Your task to perform on an android device: Go to display settings Image 0: 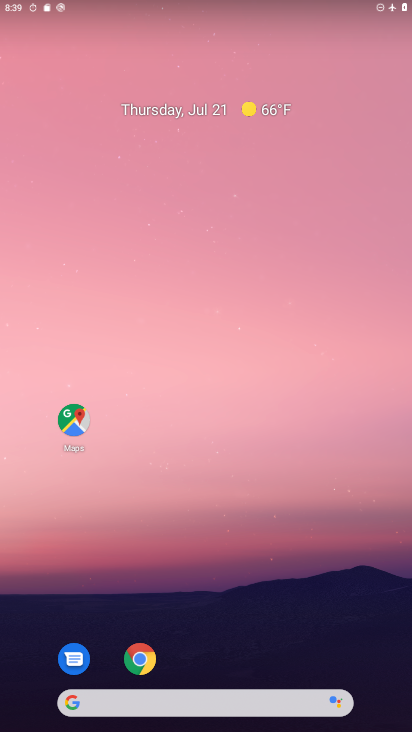
Step 0: drag from (214, 630) to (354, 279)
Your task to perform on an android device: Go to display settings Image 1: 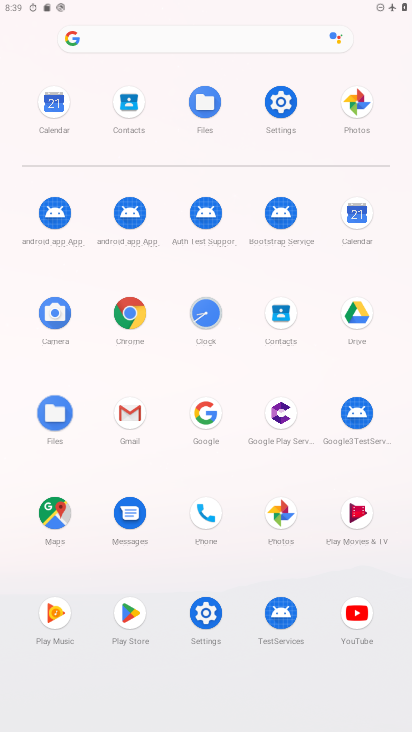
Step 1: click (211, 623)
Your task to perform on an android device: Go to display settings Image 2: 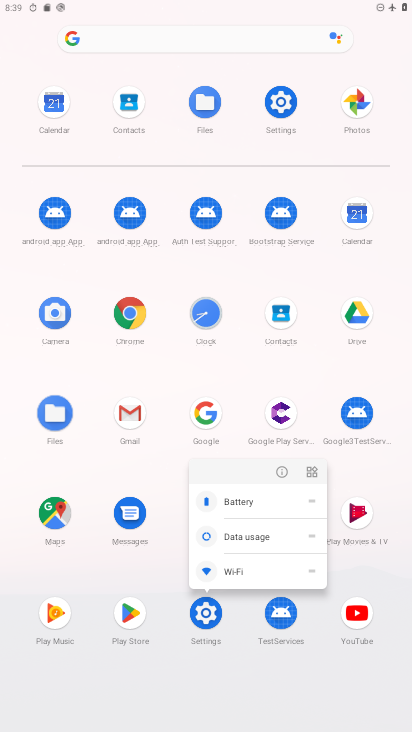
Step 2: click (278, 469)
Your task to perform on an android device: Go to display settings Image 3: 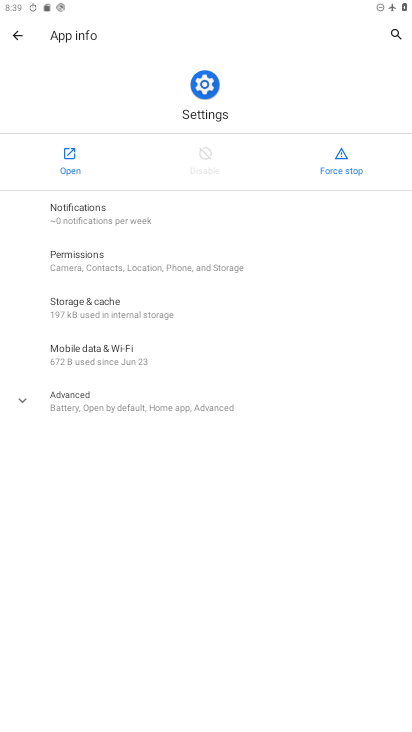
Step 3: click (64, 174)
Your task to perform on an android device: Go to display settings Image 4: 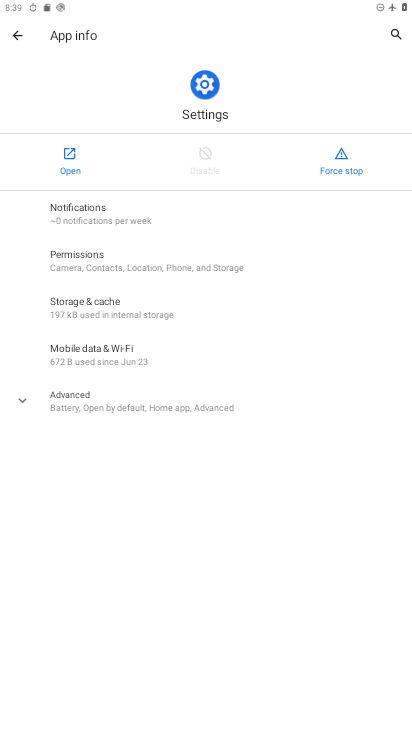
Step 4: click (64, 174)
Your task to perform on an android device: Go to display settings Image 5: 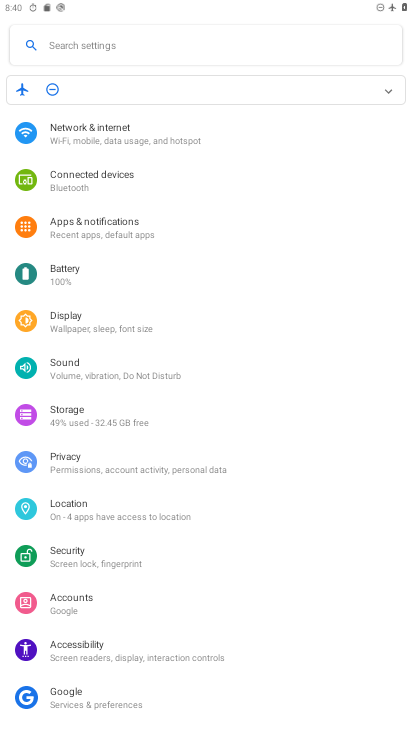
Step 5: click (90, 321)
Your task to perform on an android device: Go to display settings Image 6: 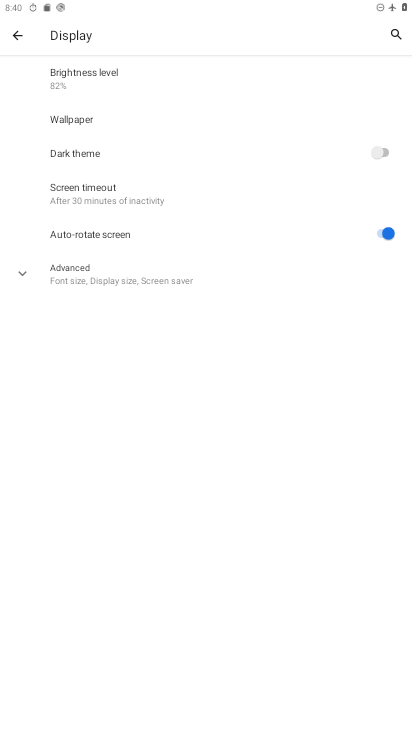
Step 6: task complete